Your task to perform on an android device: change text size in settings app Image 0: 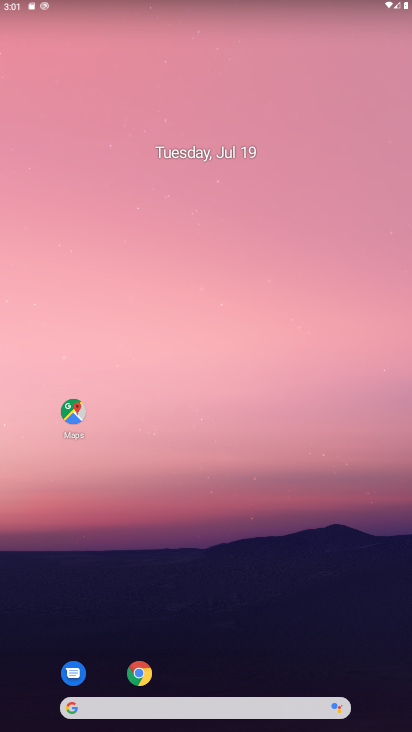
Step 0: click (280, 391)
Your task to perform on an android device: change text size in settings app Image 1: 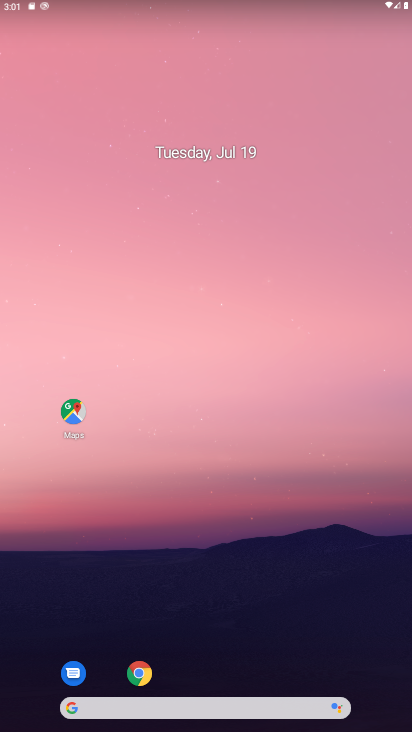
Step 1: drag from (230, 43) to (270, 2)
Your task to perform on an android device: change text size in settings app Image 2: 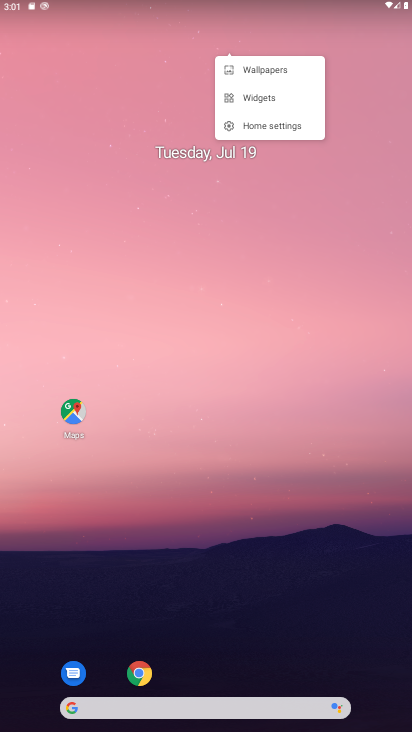
Step 2: drag from (284, 158) to (287, 121)
Your task to perform on an android device: change text size in settings app Image 3: 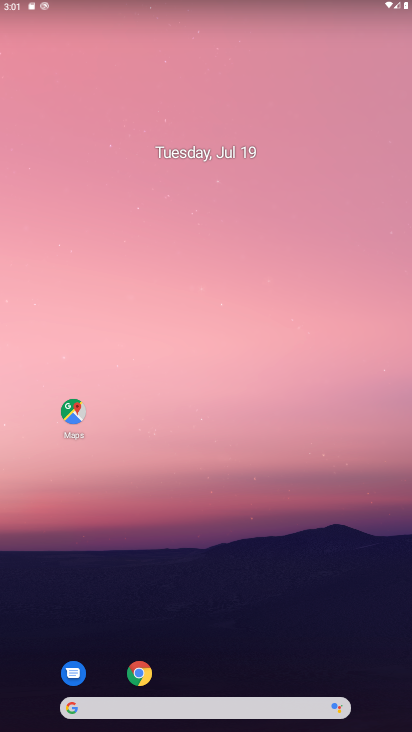
Step 3: drag from (237, 712) to (244, 219)
Your task to perform on an android device: change text size in settings app Image 4: 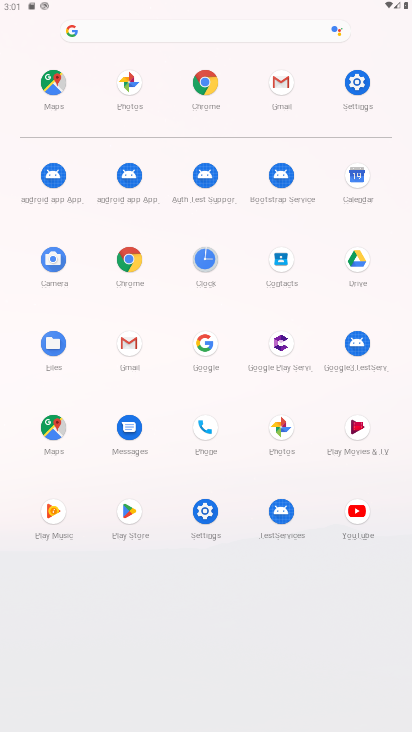
Step 4: click (202, 525)
Your task to perform on an android device: change text size in settings app Image 5: 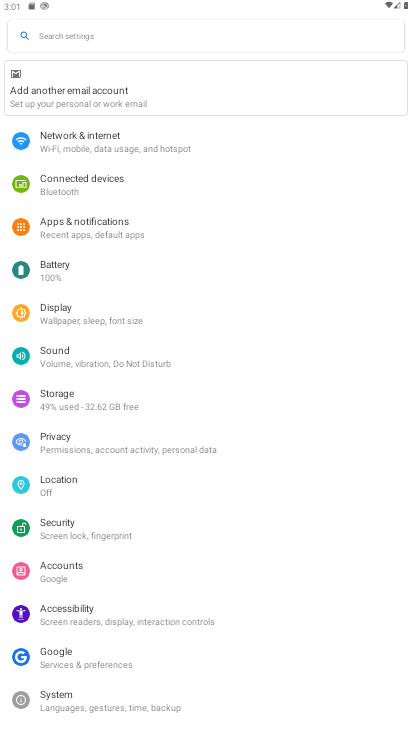
Step 5: click (84, 321)
Your task to perform on an android device: change text size in settings app Image 6: 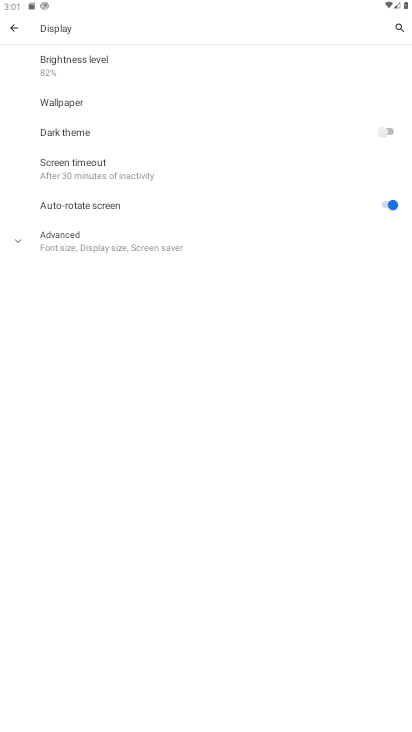
Step 6: click (89, 237)
Your task to perform on an android device: change text size in settings app Image 7: 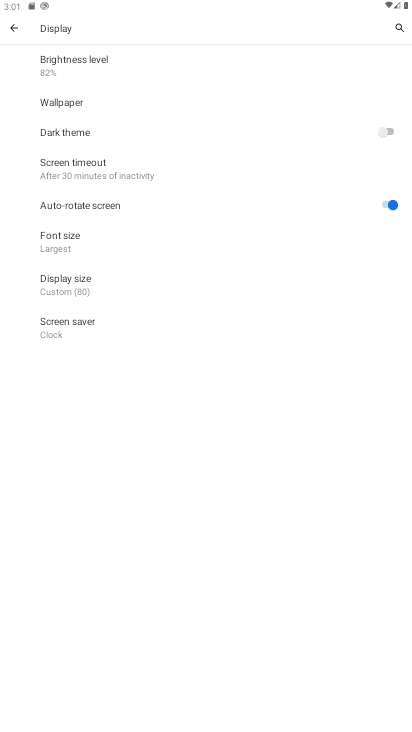
Step 7: click (62, 243)
Your task to perform on an android device: change text size in settings app Image 8: 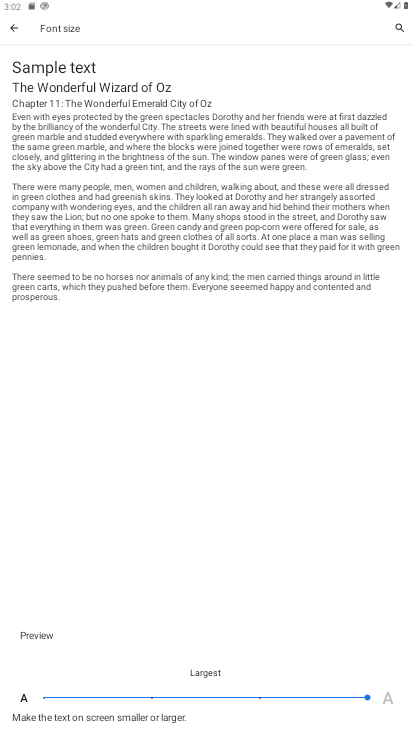
Step 8: click (257, 696)
Your task to perform on an android device: change text size in settings app Image 9: 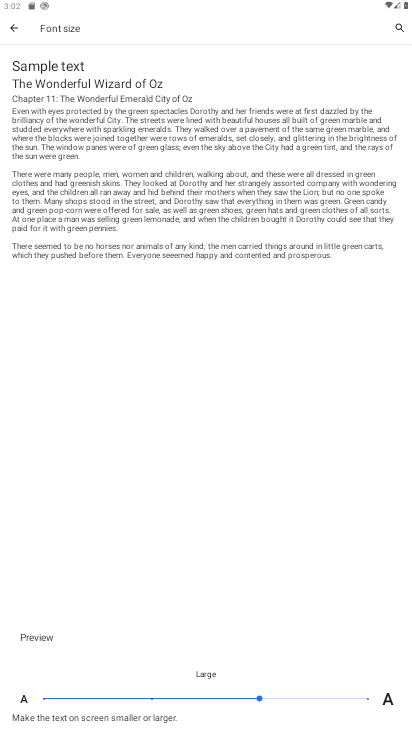
Step 9: task complete